Your task to perform on an android device: open chrome and create a bookmark for the current page Image 0: 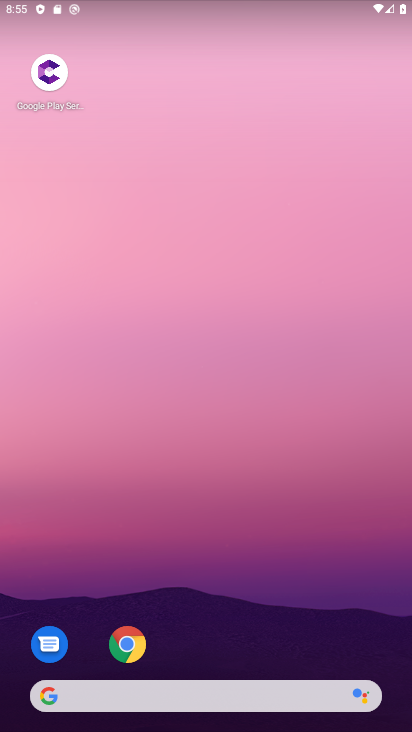
Step 0: click (123, 649)
Your task to perform on an android device: open chrome and create a bookmark for the current page Image 1: 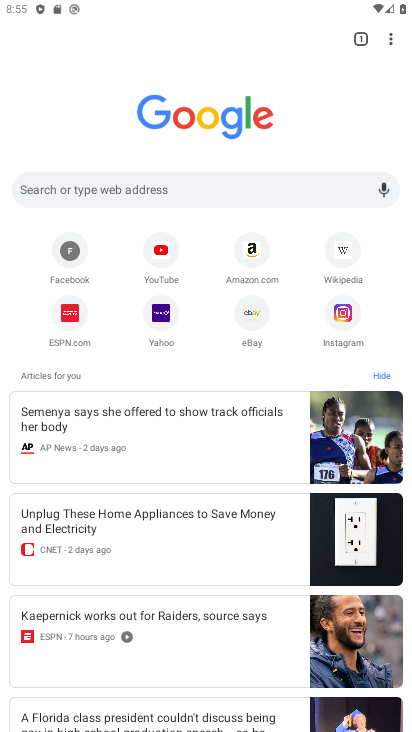
Step 1: click (391, 41)
Your task to perform on an android device: open chrome and create a bookmark for the current page Image 2: 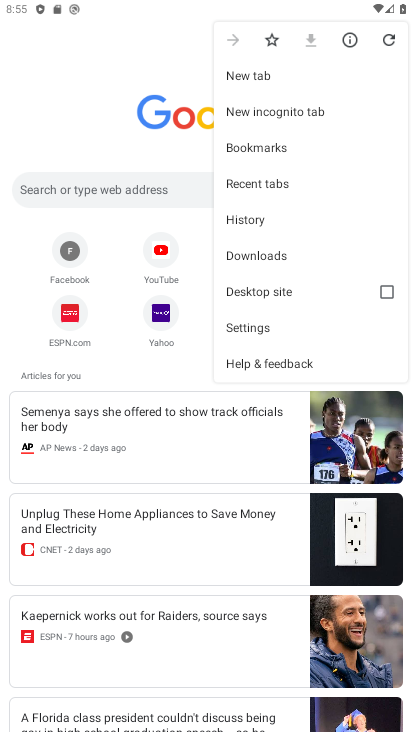
Step 2: click (272, 39)
Your task to perform on an android device: open chrome and create a bookmark for the current page Image 3: 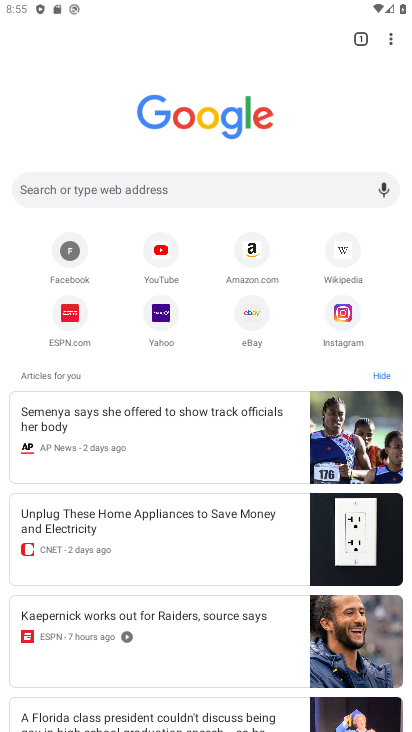
Step 3: task complete